Your task to perform on an android device: see tabs open on other devices in the chrome app Image 0: 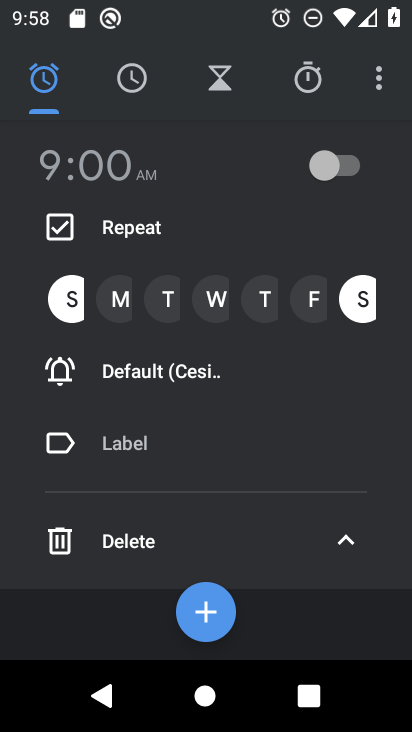
Step 0: press home button
Your task to perform on an android device: see tabs open on other devices in the chrome app Image 1: 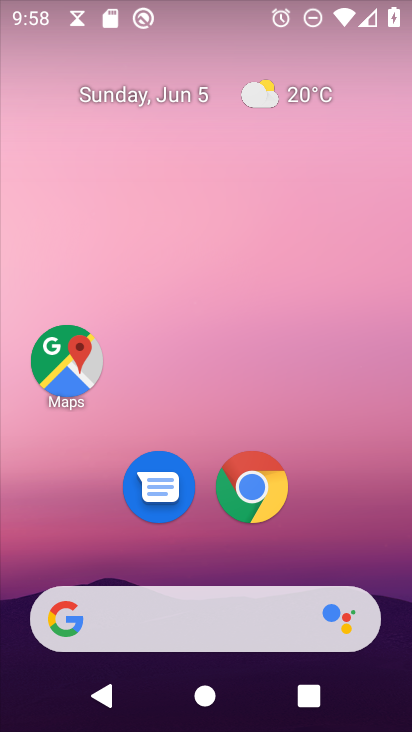
Step 1: click (257, 472)
Your task to perform on an android device: see tabs open on other devices in the chrome app Image 2: 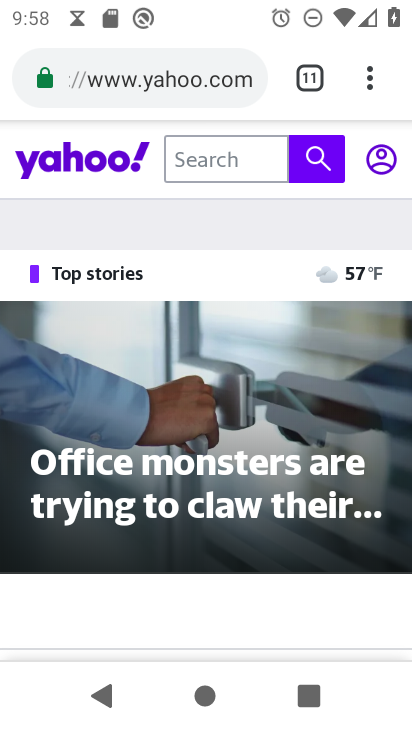
Step 2: click (374, 77)
Your task to perform on an android device: see tabs open on other devices in the chrome app Image 3: 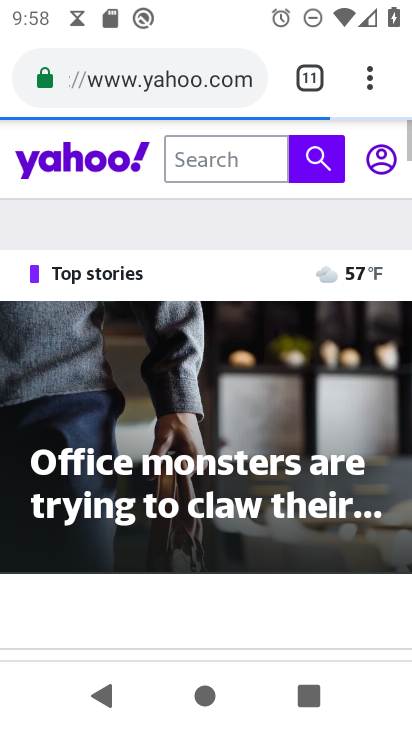
Step 3: click (366, 55)
Your task to perform on an android device: see tabs open on other devices in the chrome app Image 4: 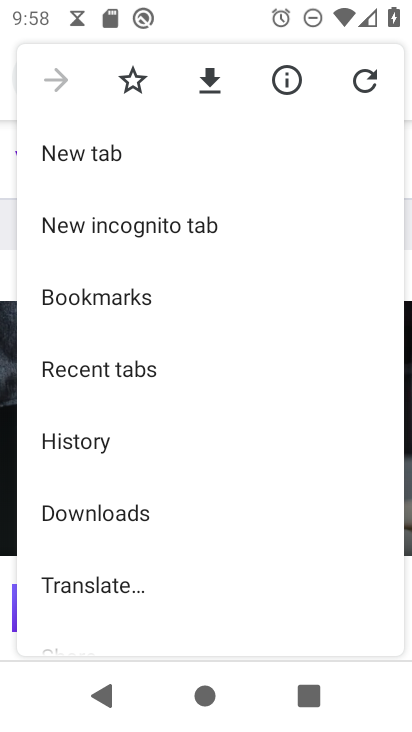
Step 4: click (114, 422)
Your task to perform on an android device: see tabs open on other devices in the chrome app Image 5: 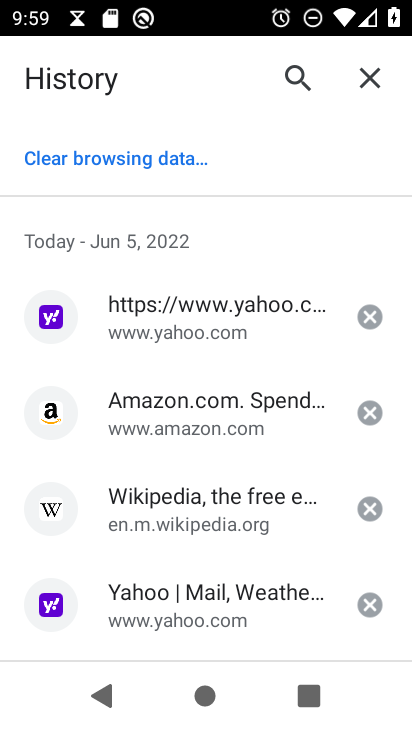
Step 5: task complete